Your task to perform on an android device: allow notifications from all sites in the chrome app Image 0: 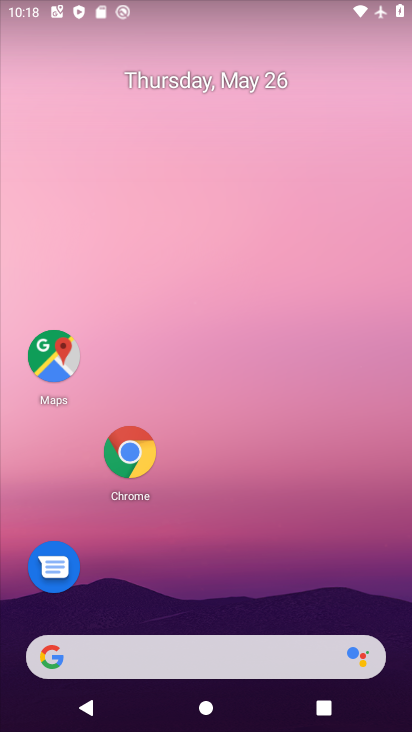
Step 0: press home button
Your task to perform on an android device: allow notifications from all sites in the chrome app Image 1: 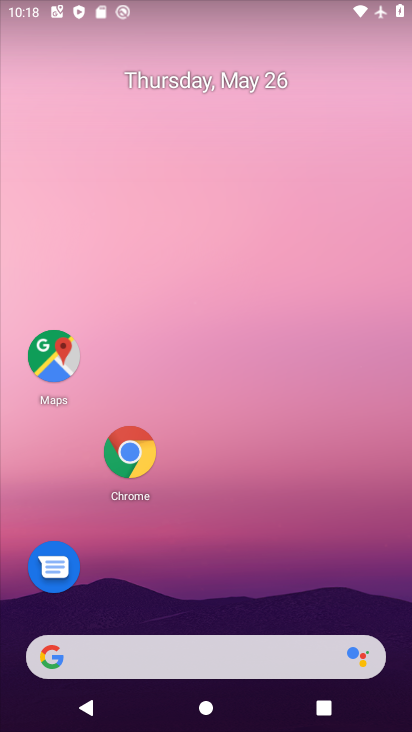
Step 1: click (141, 450)
Your task to perform on an android device: allow notifications from all sites in the chrome app Image 2: 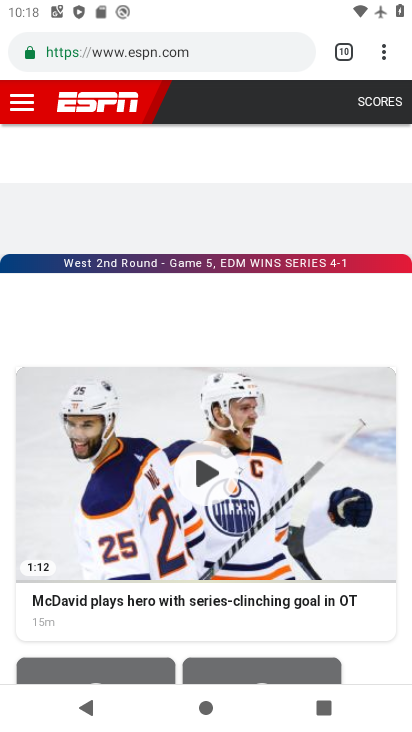
Step 2: drag from (381, 52) to (270, 623)
Your task to perform on an android device: allow notifications from all sites in the chrome app Image 3: 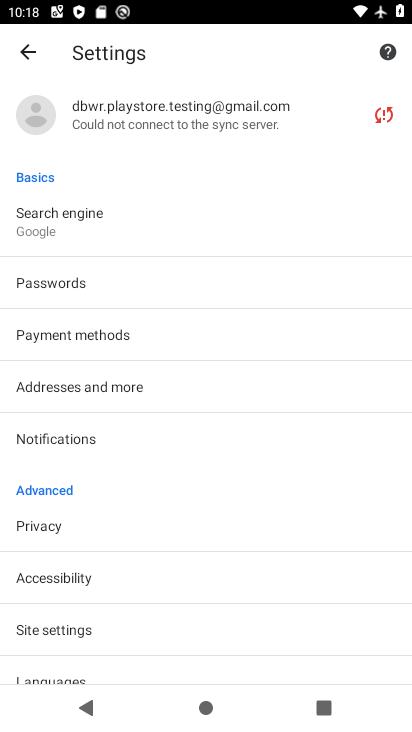
Step 3: click (115, 639)
Your task to perform on an android device: allow notifications from all sites in the chrome app Image 4: 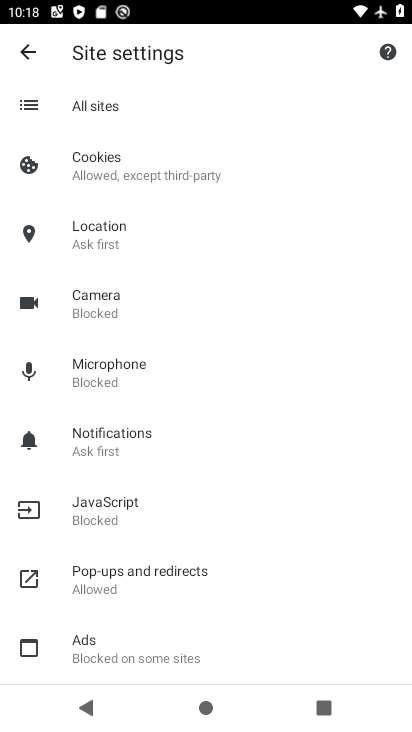
Step 4: click (117, 433)
Your task to perform on an android device: allow notifications from all sites in the chrome app Image 5: 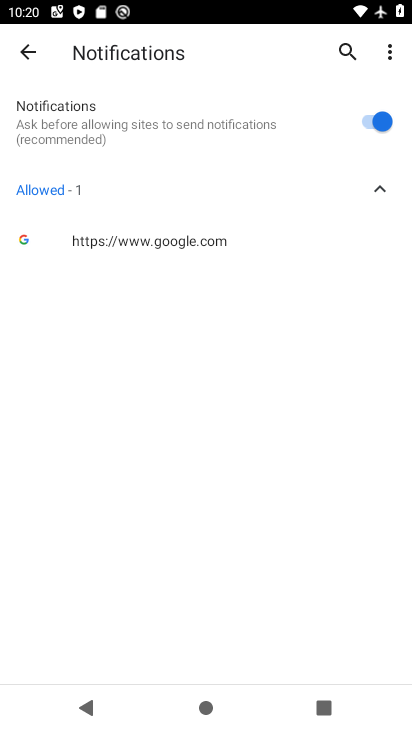
Step 5: task complete